Your task to perform on an android device: Do I have any events today? Image 0: 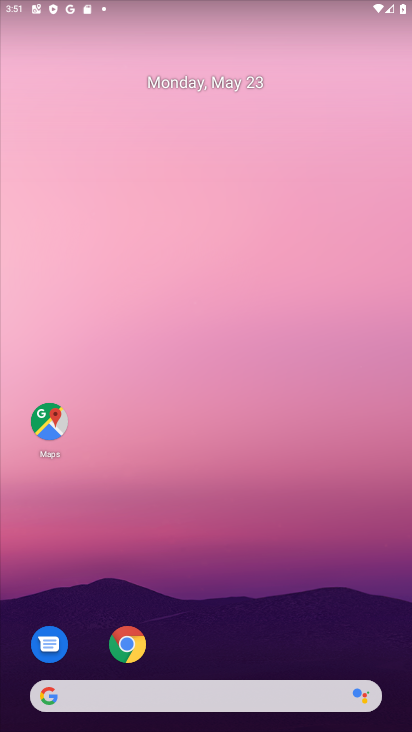
Step 0: drag from (253, 633) to (265, 182)
Your task to perform on an android device: Do I have any events today? Image 1: 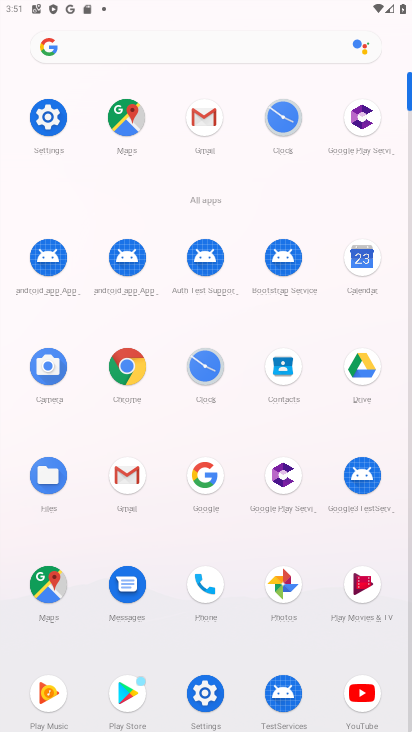
Step 1: click (368, 268)
Your task to perform on an android device: Do I have any events today? Image 2: 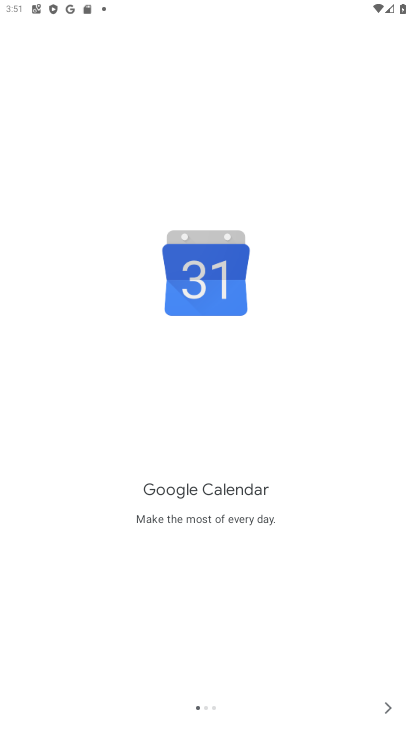
Step 2: click (390, 712)
Your task to perform on an android device: Do I have any events today? Image 3: 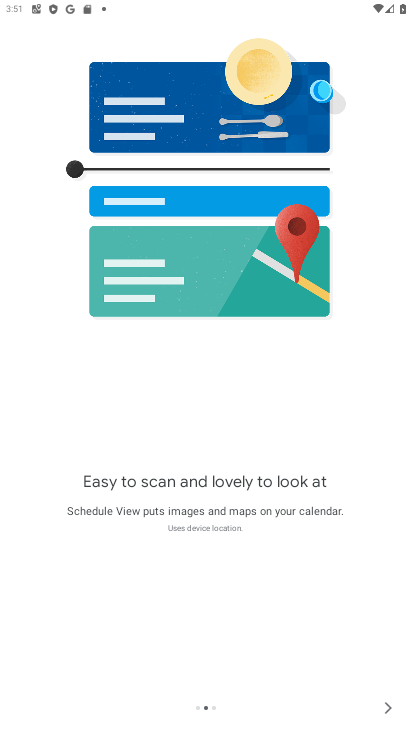
Step 3: click (390, 712)
Your task to perform on an android device: Do I have any events today? Image 4: 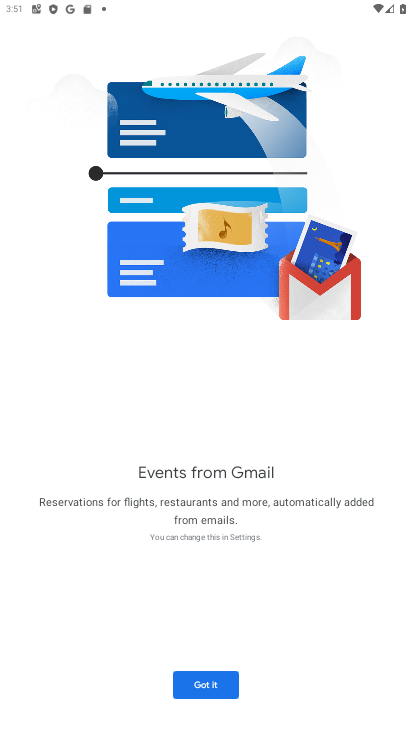
Step 4: click (223, 691)
Your task to perform on an android device: Do I have any events today? Image 5: 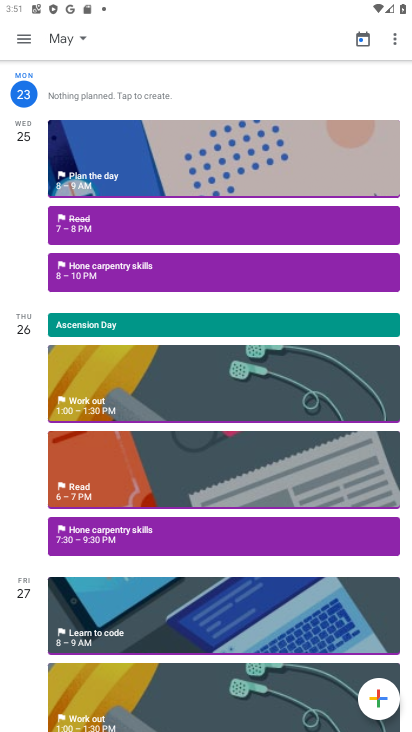
Step 5: click (21, 37)
Your task to perform on an android device: Do I have any events today? Image 6: 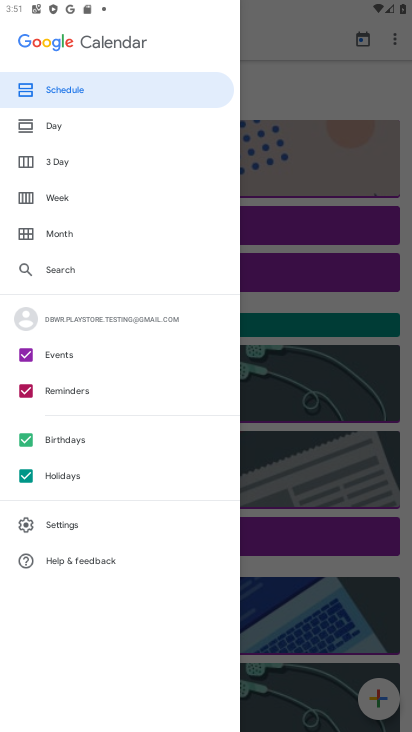
Step 6: click (29, 478)
Your task to perform on an android device: Do I have any events today? Image 7: 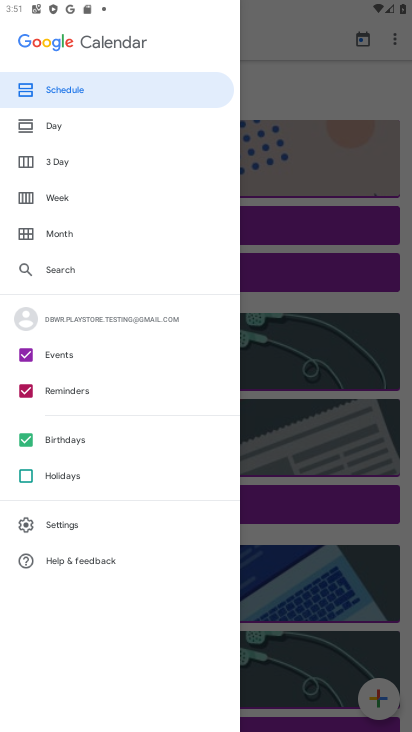
Step 7: click (25, 431)
Your task to perform on an android device: Do I have any events today? Image 8: 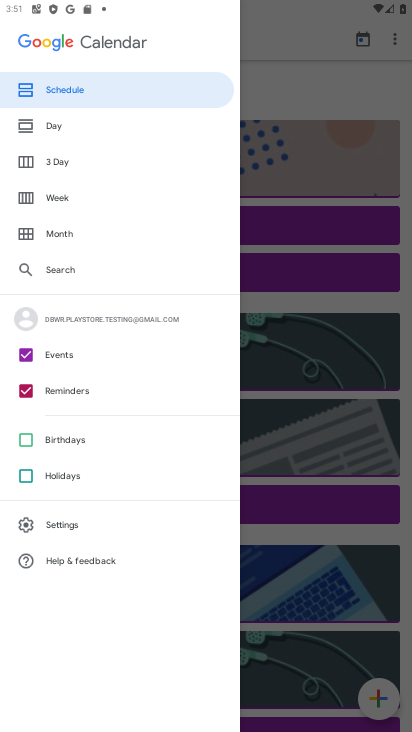
Step 8: click (27, 383)
Your task to perform on an android device: Do I have any events today? Image 9: 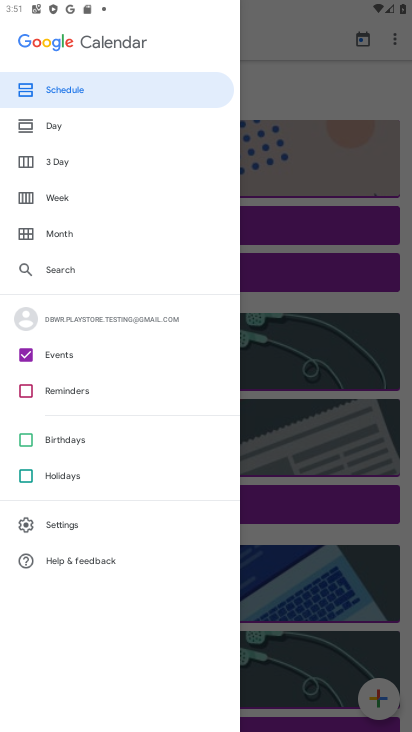
Step 9: click (59, 126)
Your task to perform on an android device: Do I have any events today? Image 10: 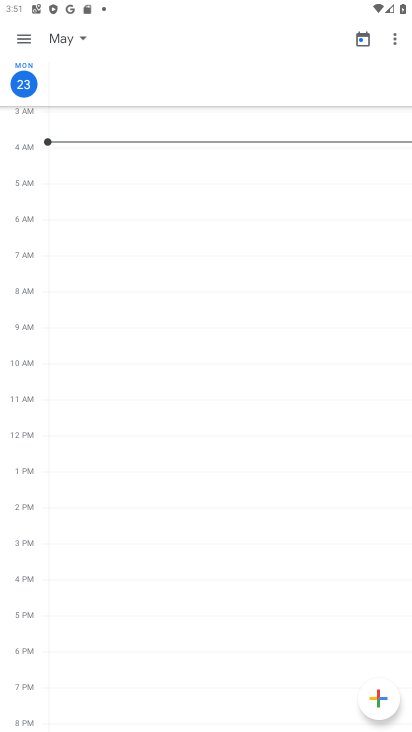
Step 10: click (76, 36)
Your task to perform on an android device: Do I have any events today? Image 11: 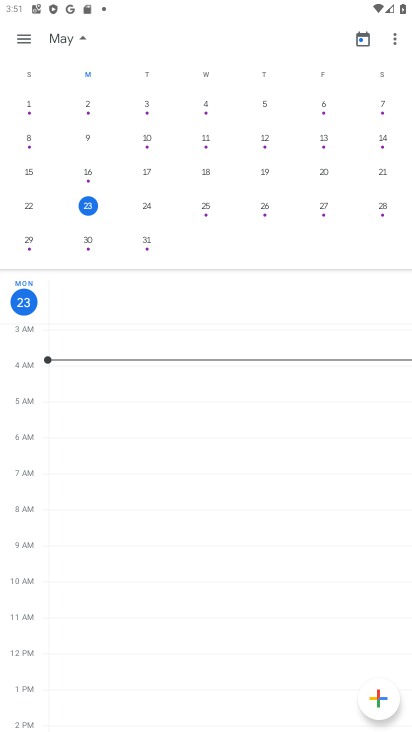
Step 11: click (91, 215)
Your task to perform on an android device: Do I have any events today? Image 12: 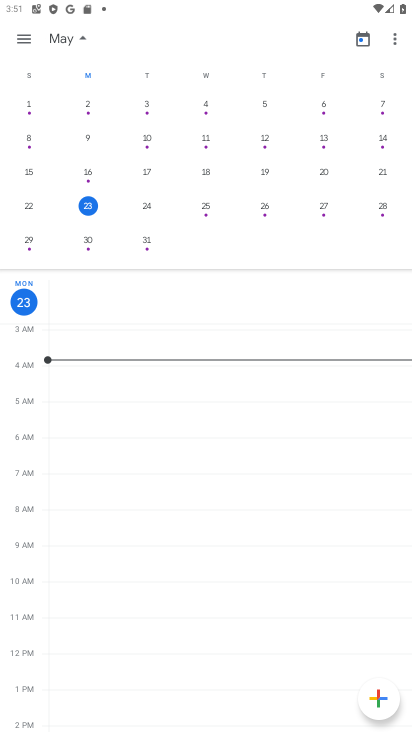
Step 12: click (83, 33)
Your task to perform on an android device: Do I have any events today? Image 13: 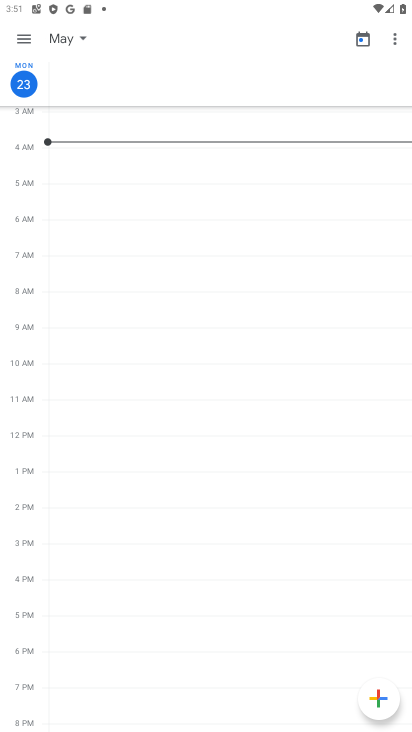
Step 13: task complete